Your task to perform on an android device: check storage Image 0: 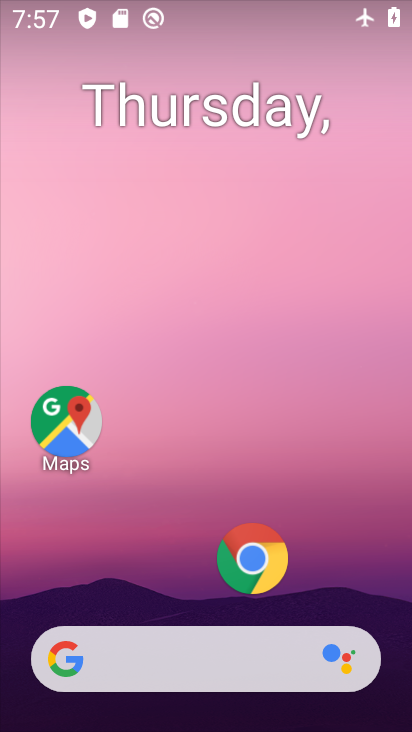
Step 0: drag from (180, 581) to (214, 171)
Your task to perform on an android device: check storage Image 1: 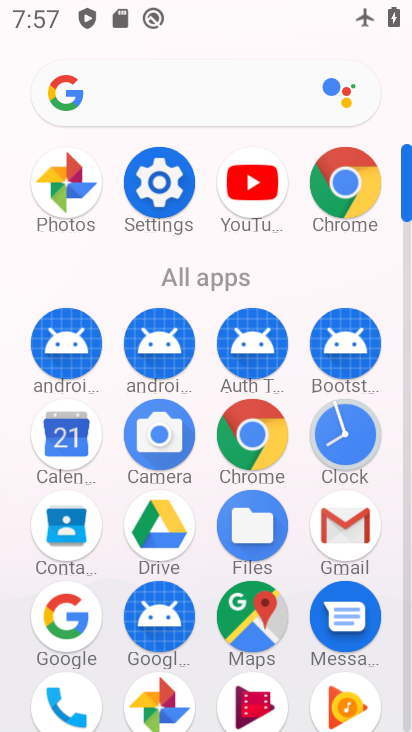
Step 1: click (159, 180)
Your task to perform on an android device: check storage Image 2: 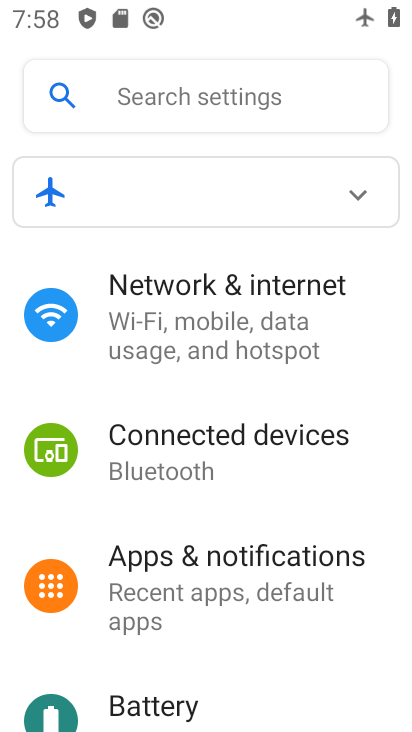
Step 2: drag from (226, 614) to (255, 459)
Your task to perform on an android device: check storage Image 3: 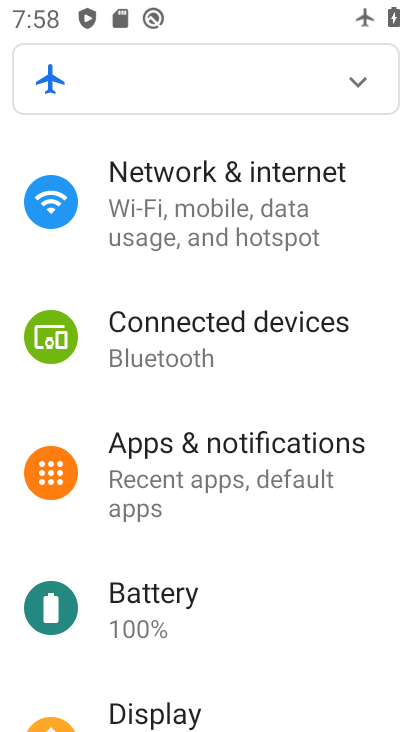
Step 3: drag from (233, 616) to (259, 336)
Your task to perform on an android device: check storage Image 4: 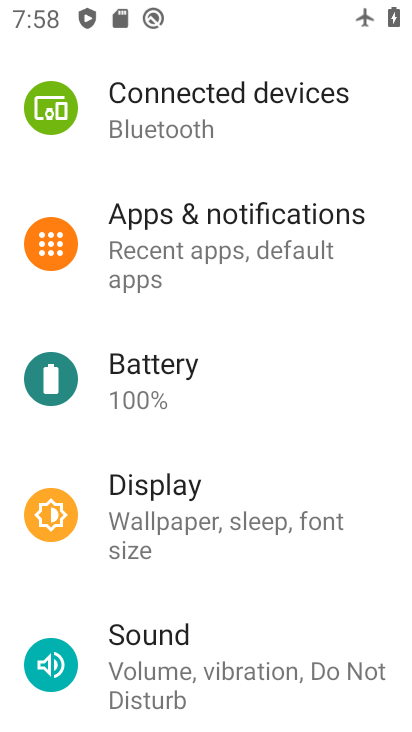
Step 4: drag from (221, 642) to (260, 347)
Your task to perform on an android device: check storage Image 5: 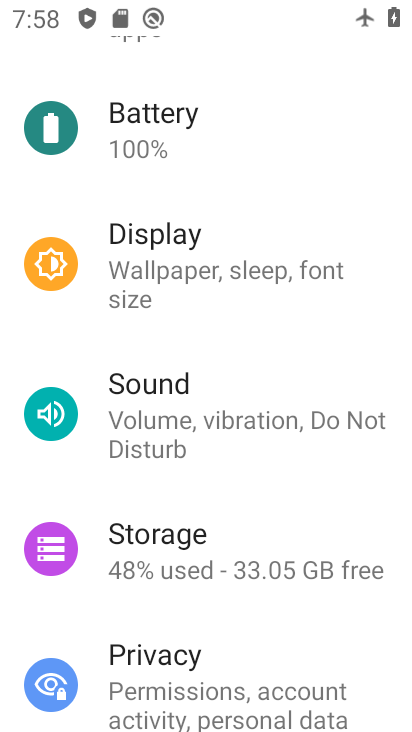
Step 5: click (195, 539)
Your task to perform on an android device: check storage Image 6: 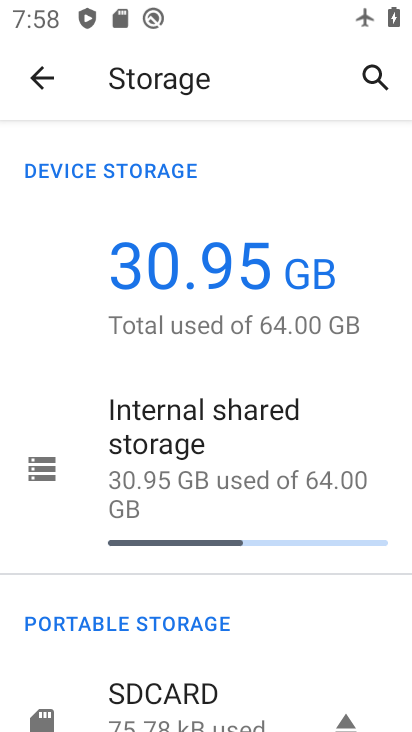
Step 6: task complete